Your task to perform on an android device: check data usage Image 0: 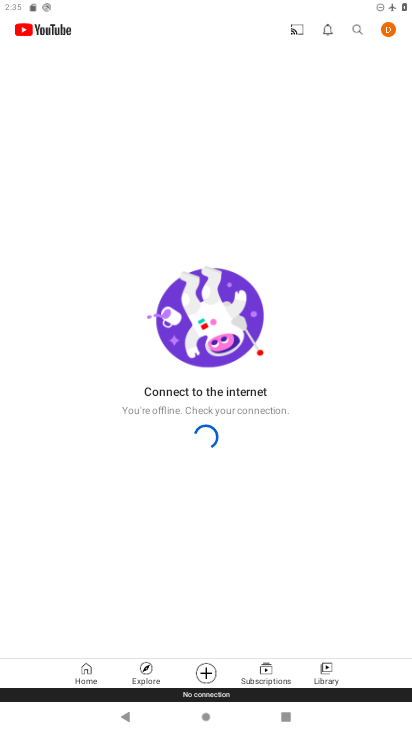
Step 0: press home button
Your task to perform on an android device: check data usage Image 1: 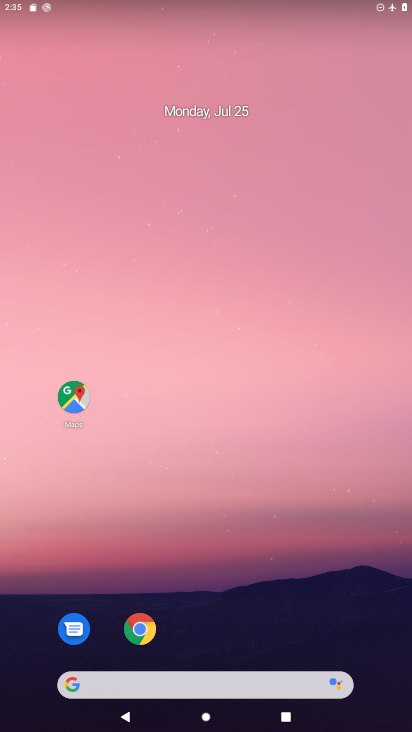
Step 1: drag from (203, 223) to (153, 86)
Your task to perform on an android device: check data usage Image 2: 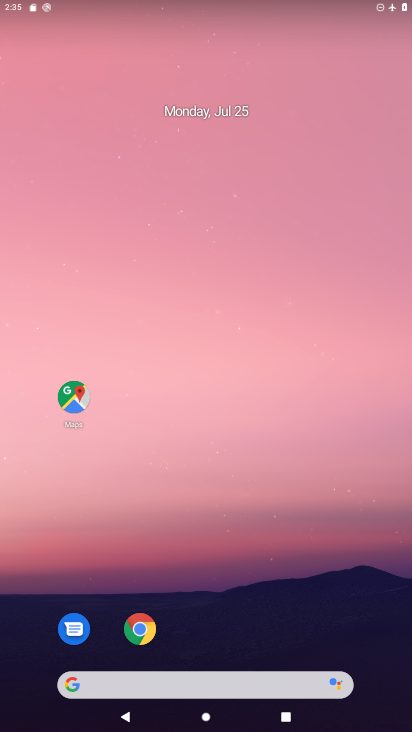
Step 2: drag from (244, 560) to (160, 85)
Your task to perform on an android device: check data usage Image 3: 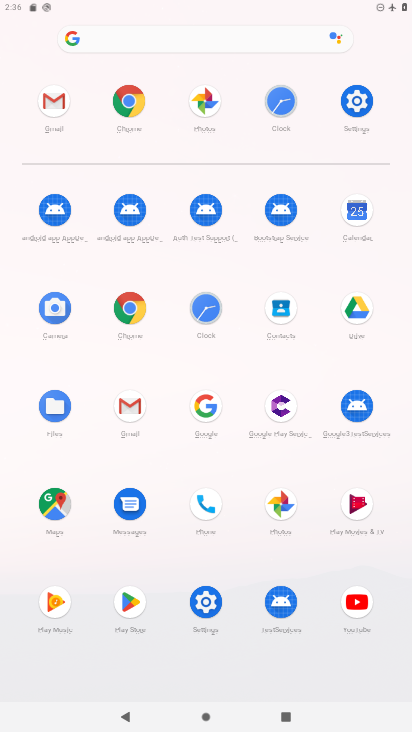
Step 3: click (358, 116)
Your task to perform on an android device: check data usage Image 4: 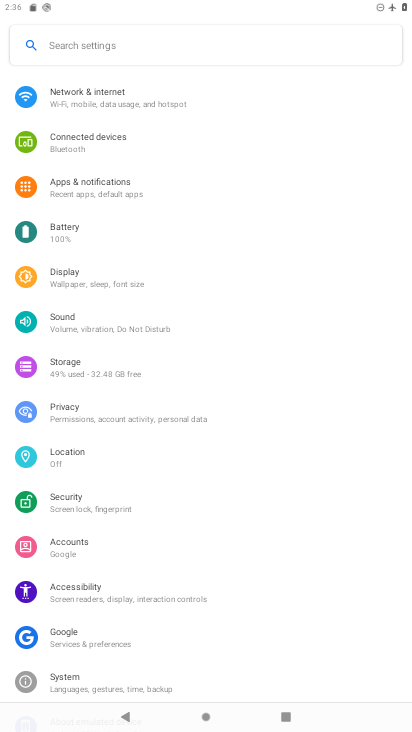
Step 4: click (99, 115)
Your task to perform on an android device: check data usage Image 5: 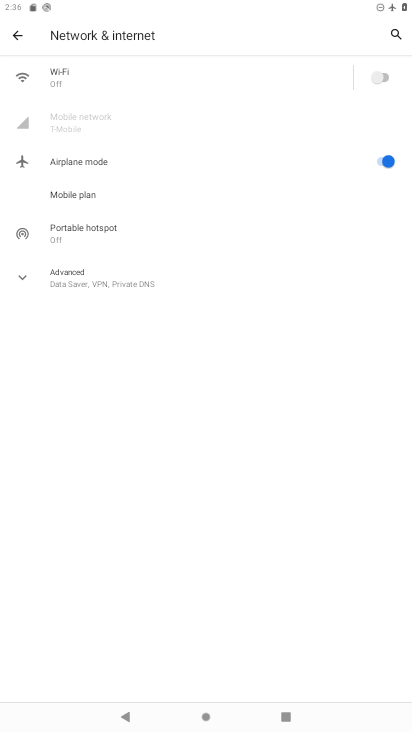
Step 5: task complete